Your task to perform on an android device: Turn off the flashlight Image 0: 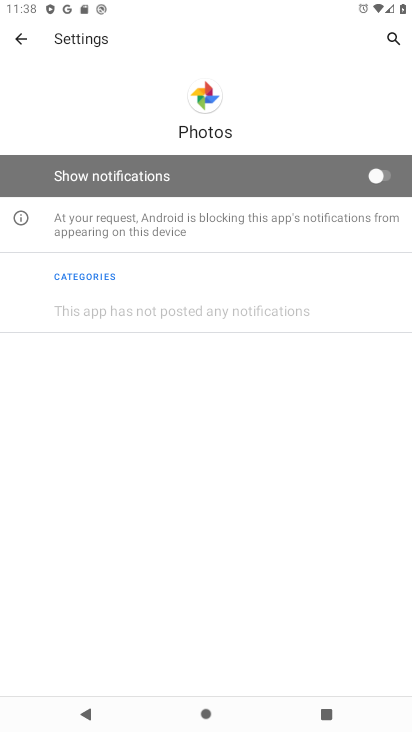
Step 0: press home button
Your task to perform on an android device: Turn off the flashlight Image 1: 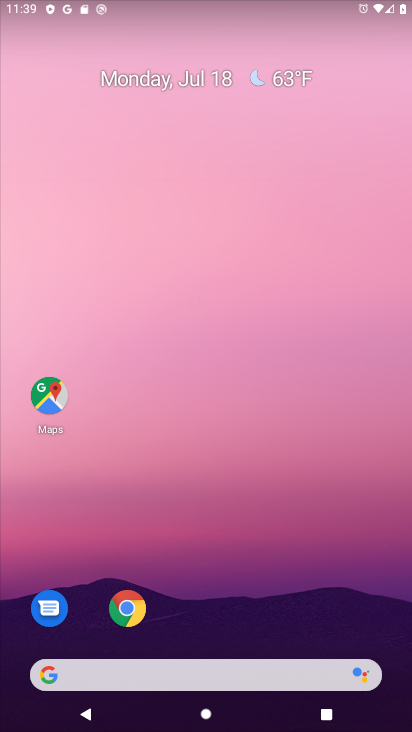
Step 1: drag from (231, 200) to (231, 76)
Your task to perform on an android device: Turn off the flashlight Image 2: 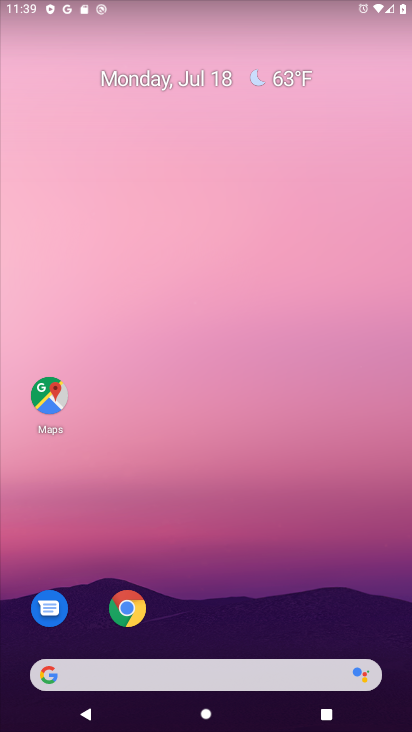
Step 2: drag from (341, 585) to (339, 81)
Your task to perform on an android device: Turn off the flashlight Image 3: 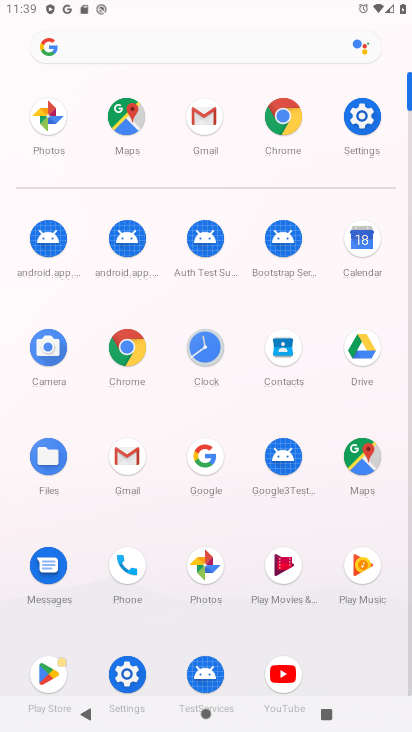
Step 3: click (368, 115)
Your task to perform on an android device: Turn off the flashlight Image 4: 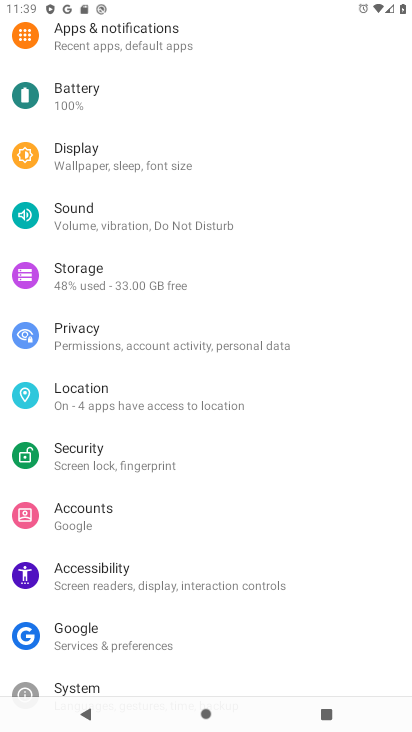
Step 4: task complete